Your task to perform on an android device: Go to Reddit.com Image 0: 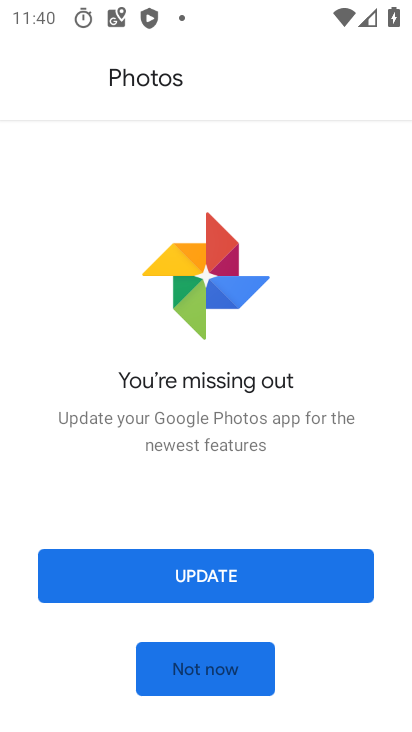
Step 0: press home button
Your task to perform on an android device: Go to Reddit.com Image 1: 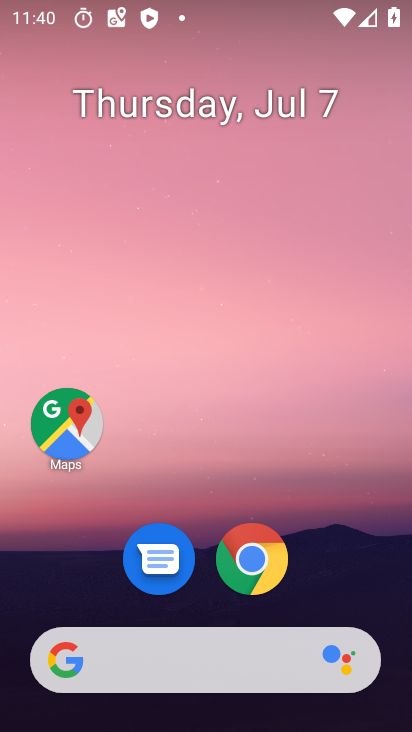
Step 1: drag from (368, 551) to (362, 107)
Your task to perform on an android device: Go to Reddit.com Image 2: 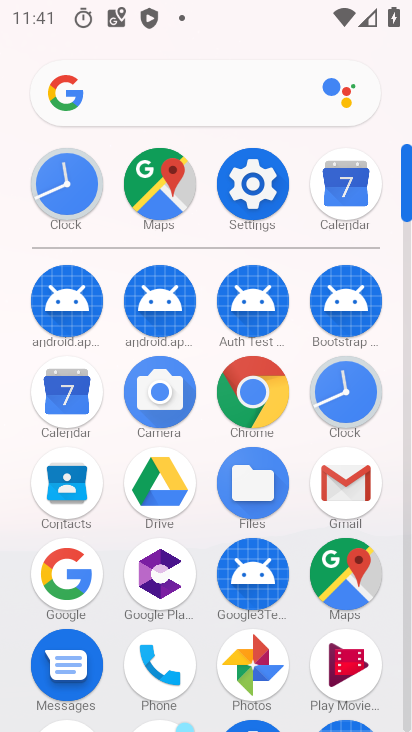
Step 2: click (257, 388)
Your task to perform on an android device: Go to Reddit.com Image 3: 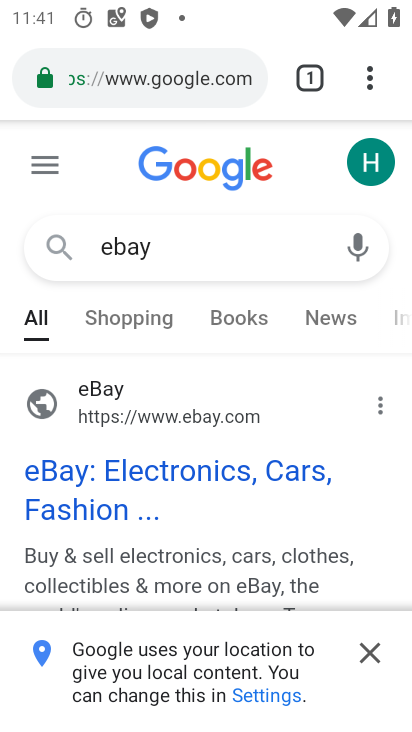
Step 3: click (218, 86)
Your task to perform on an android device: Go to Reddit.com Image 4: 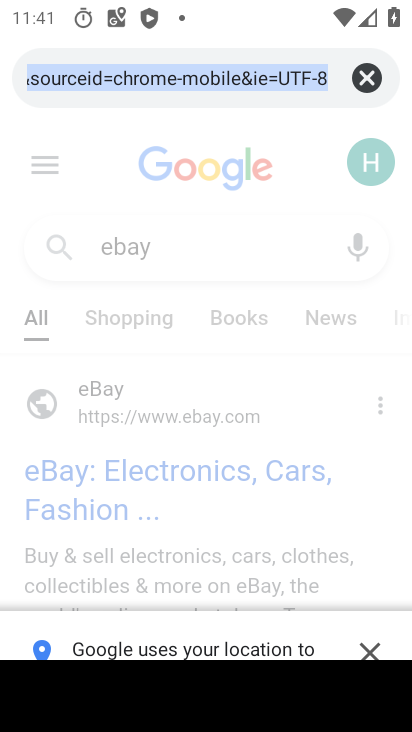
Step 4: type "reddit.com"
Your task to perform on an android device: Go to Reddit.com Image 5: 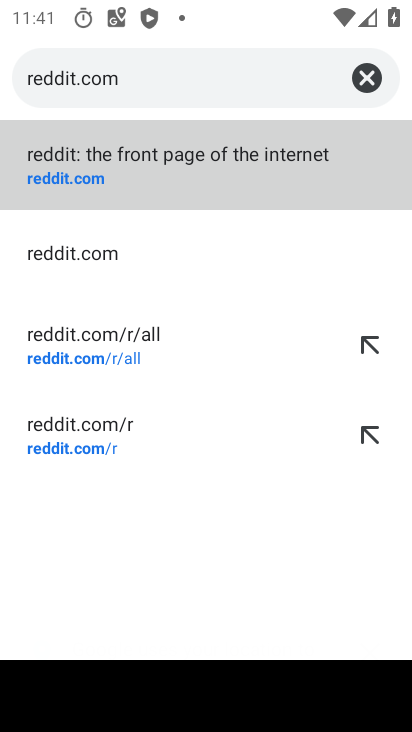
Step 5: click (236, 175)
Your task to perform on an android device: Go to Reddit.com Image 6: 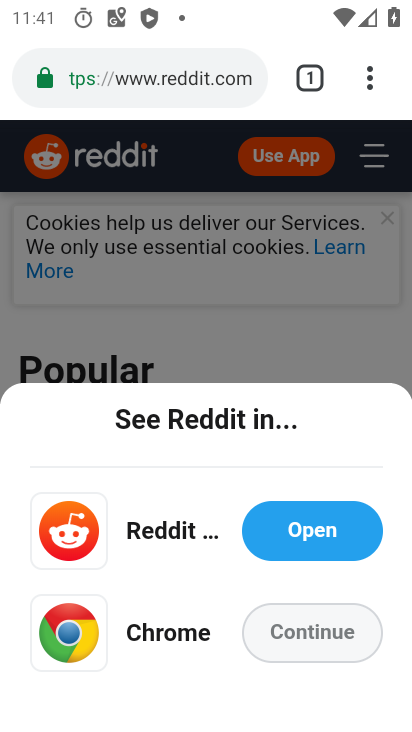
Step 6: task complete